Your task to perform on an android device: Go to privacy settings Image 0: 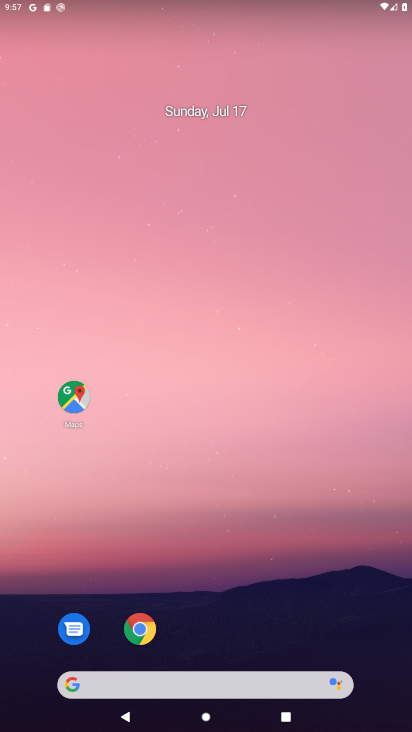
Step 0: drag from (232, 680) to (243, 129)
Your task to perform on an android device: Go to privacy settings Image 1: 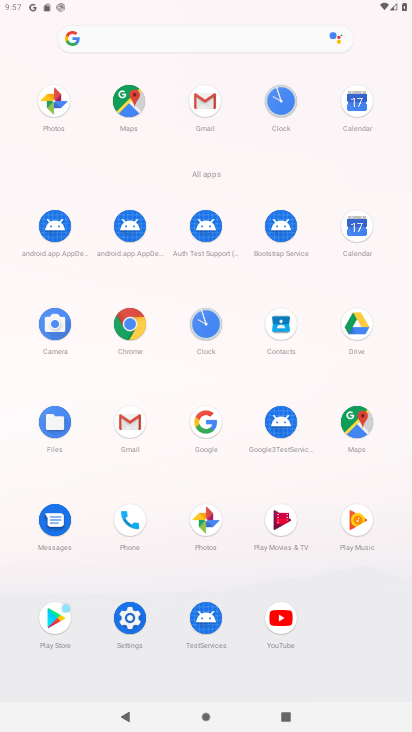
Step 1: click (129, 619)
Your task to perform on an android device: Go to privacy settings Image 2: 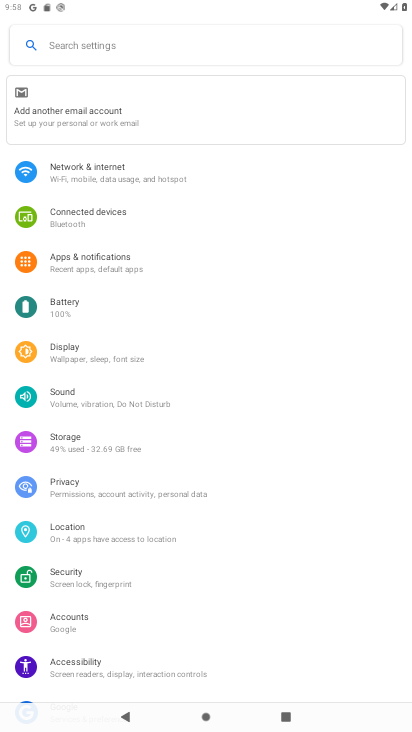
Step 2: click (86, 489)
Your task to perform on an android device: Go to privacy settings Image 3: 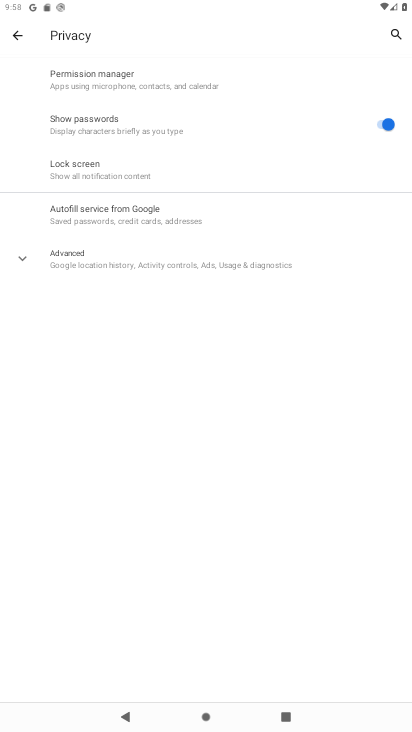
Step 3: task complete